Your task to perform on an android device: turn on notifications settings in the gmail app Image 0: 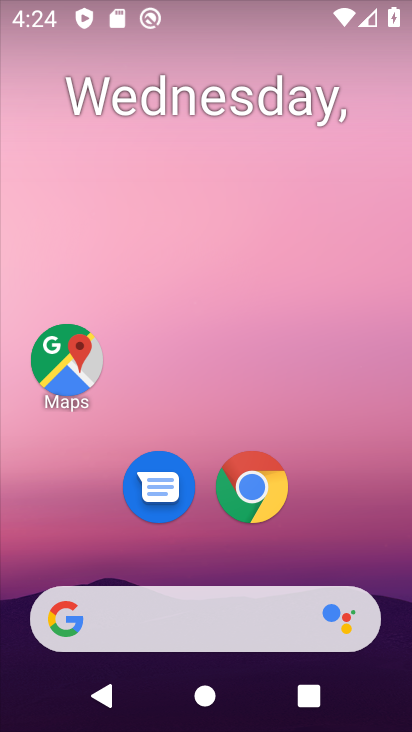
Step 0: drag from (207, 563) to (212, 67)
Your task to perform on an android device: turn on notifications settings in the gmail app Image 1: 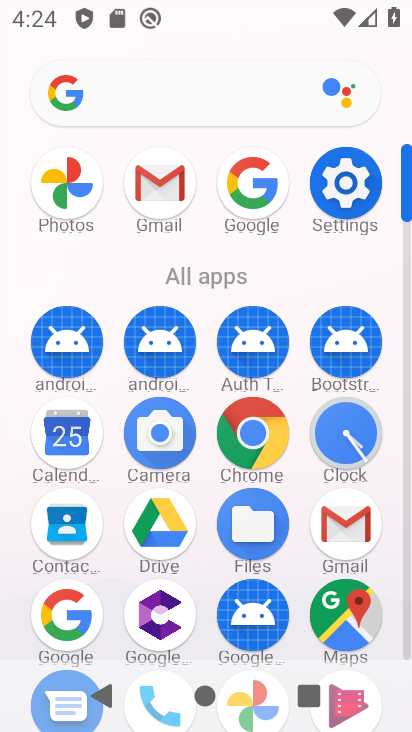
Step 1: click (346, 516)
Your task to perform on an android device: turn on notifications settings in the gmail app Image 2: 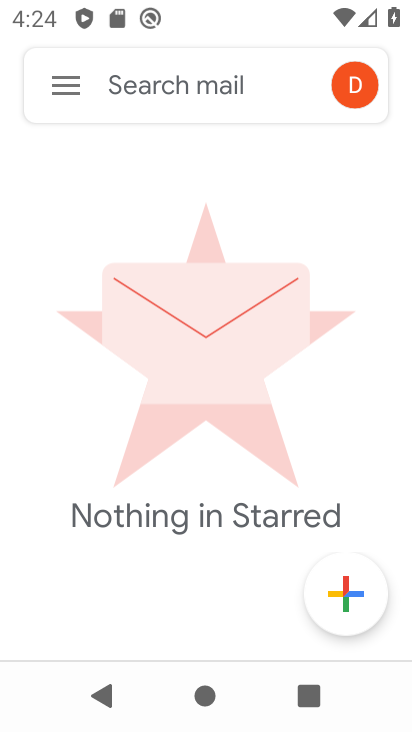
Step 2: click (55, 73)
Your task to perform on an android device: turn on notifications settings in the gmail app Image 3: 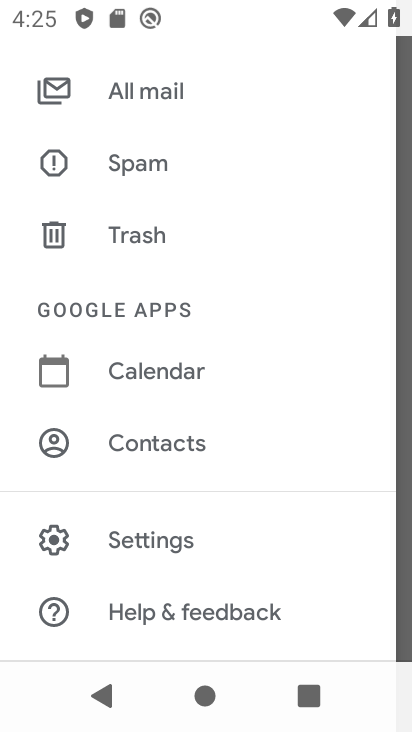
Step 3: click (171, 542)
Your task to perform on an android device: turn on notifications settings in the gmail app Image 4: 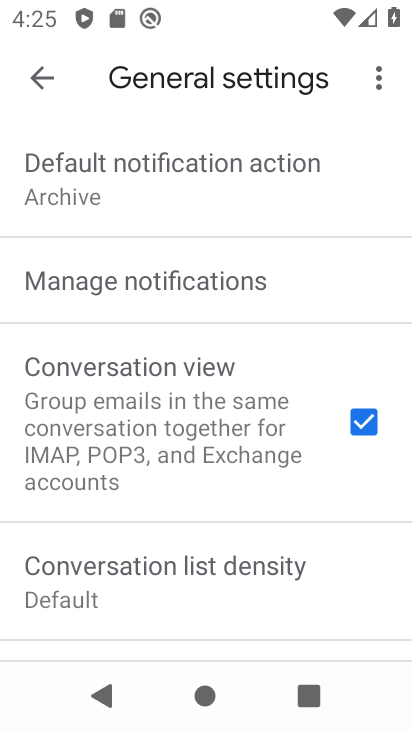
Step 4: click (169, 297)
Your task to perform on an android device: turn on notifications settings in the gmail app Image 5: 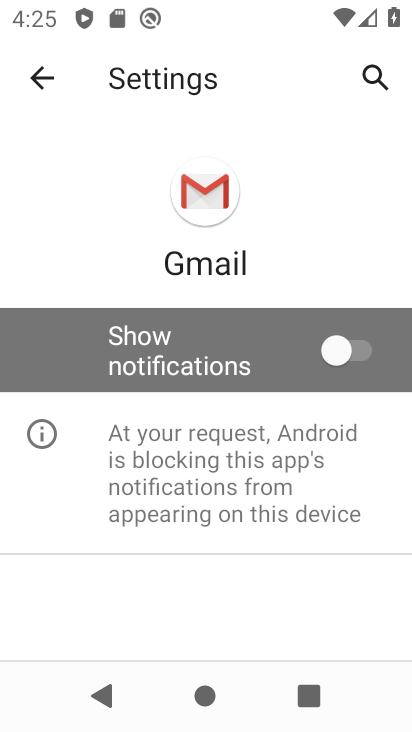
Step 5: click (356, 348)
Your task to perform on an android device: turn on notifications settings in the gmail app Image 6: 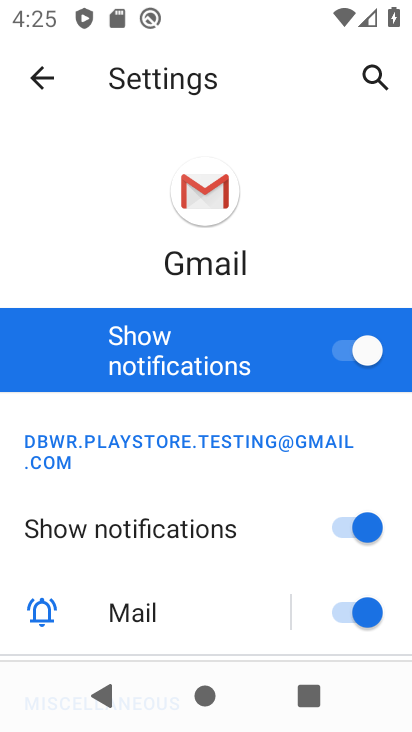
Step 6: task complete